Your task to perform on an android device: Go to Maps Image 0: 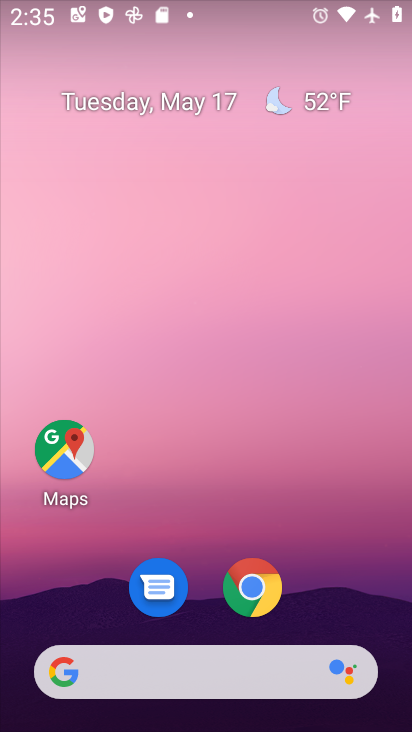
Step 0: drag from (355, 602) to (337, 70)
Your task to perform on an android device: Go to Maps Image 1: 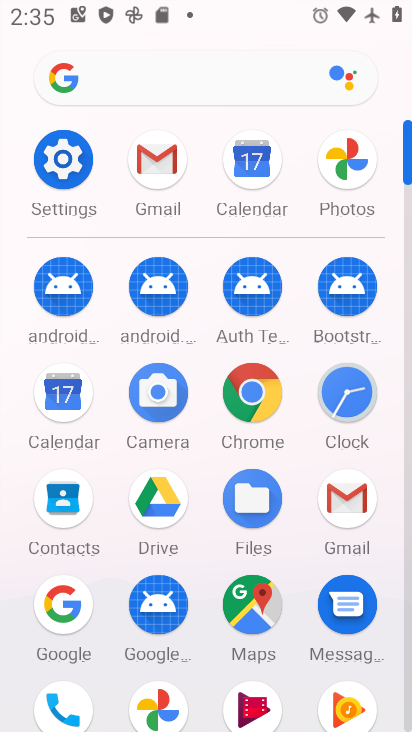
Step 1: click (243, 592)
Your task to perform on an android device: Go to Maps Image 2: 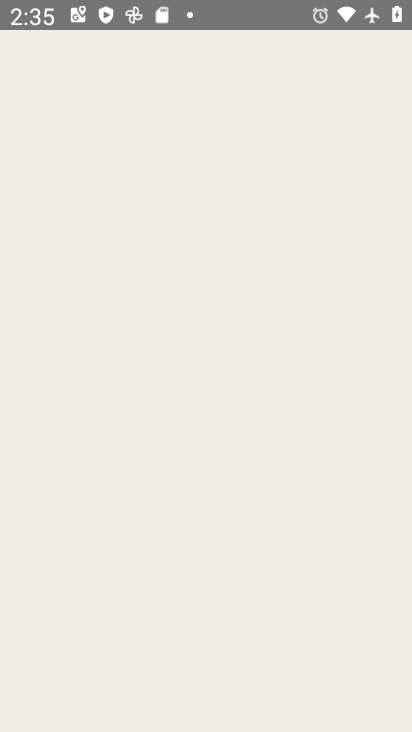
Step 2: task complete